Your task to perform on an android device: Open settings Image 0: 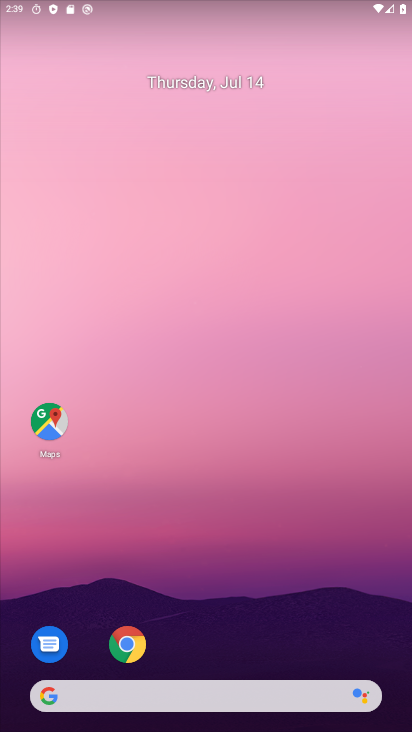
Step 0: drag from (110, 725) to (142, 271)
Your task to perform on an android device: Open settings Image 1: 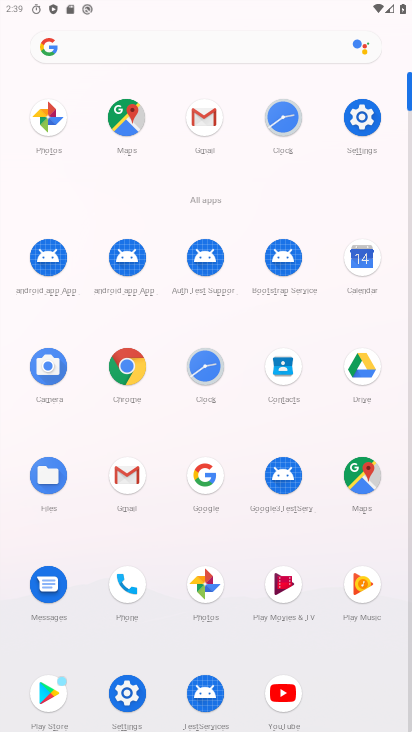
Step 1: click (131, 691)
Your task to perform on an android device: Open settings Image 2: 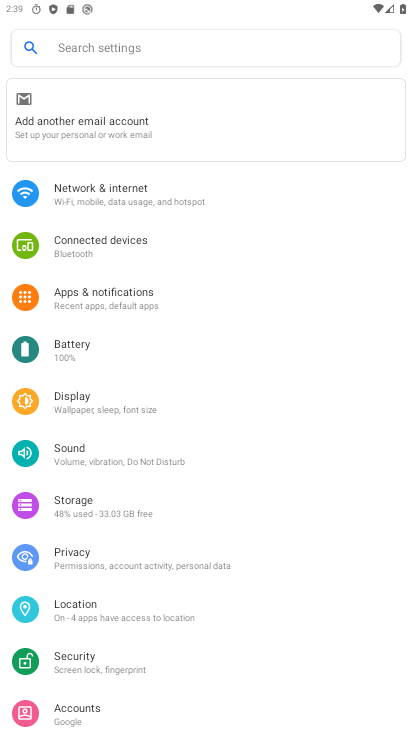
Step 2: task complete